Your task to perform on an android device: allow cookies in the chrome app Image 0: 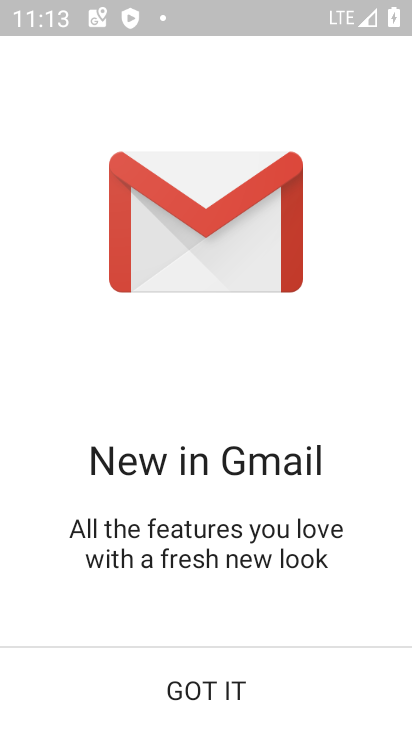
Step 0: press home button
Your task to perform on an android device: allow cookies in the chrome app Image 1: 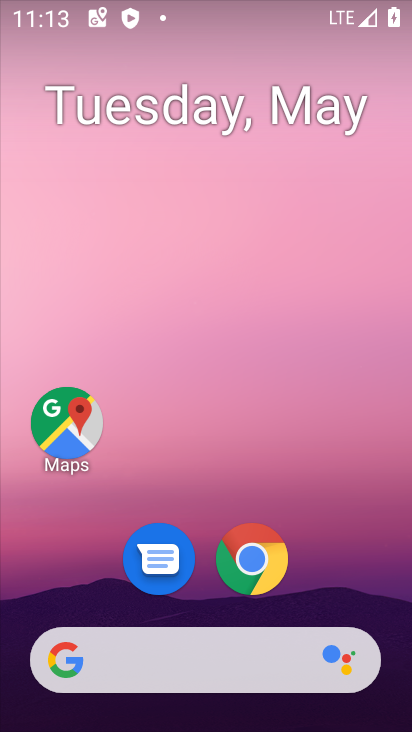
Step 1: drag from (349, 577) to (363, 154)
Your task to perform on an android device: allow cookies in the chrome app Image 2: 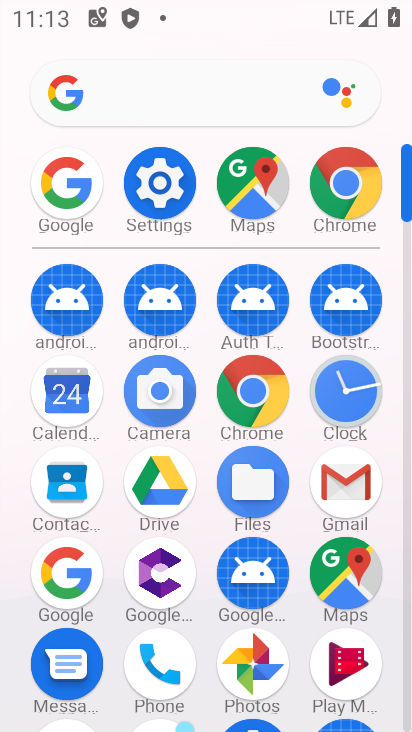
Step 2: click (260, 395)
Your task to perform on an android device: allow cookies in the chrome app Image 3: 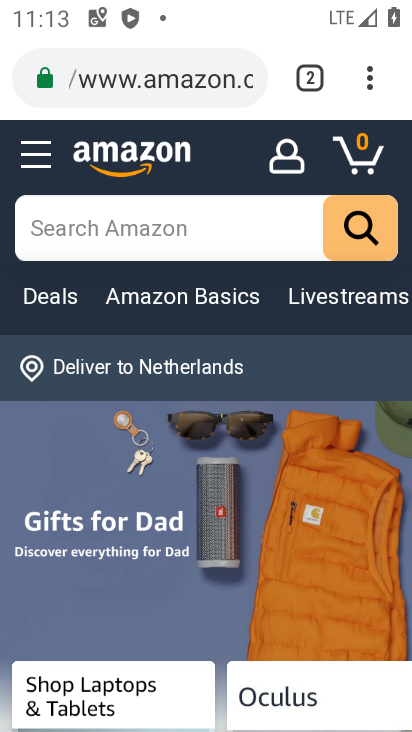
Step 3: drag from (390, 80) to (133, 614)
Your task to perform on an android device: allow cookies in the chrome app Image 4: 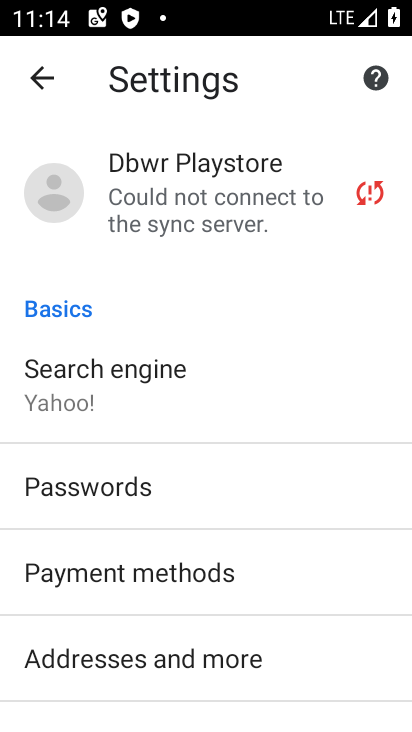
Step 4: drag from (255, 683) to (297, 347)
Your task to perform on an android device: allow cookies in the chrome app Image 5: 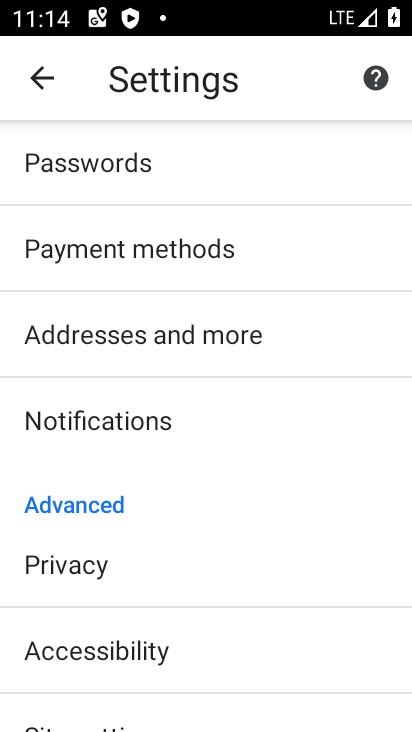
Step 5: drag from (270, 658) to (253, 306)
Your task to perform on an android device: allow cookies in the chrome app Image 6: 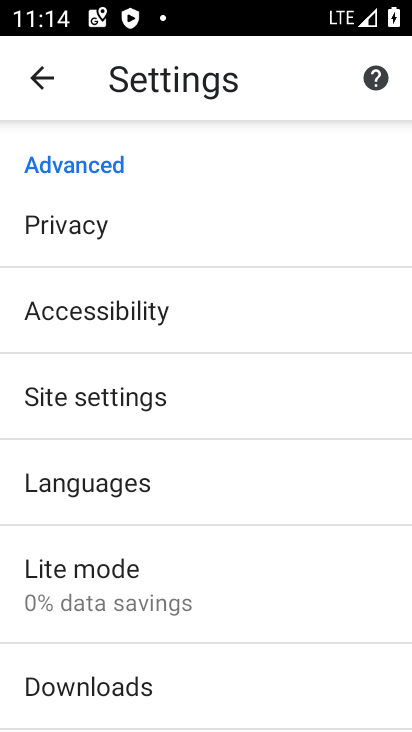
Step 6: click (194, 411)
Your task to perform on an android device: allow cookies in the chrome app Image 7: 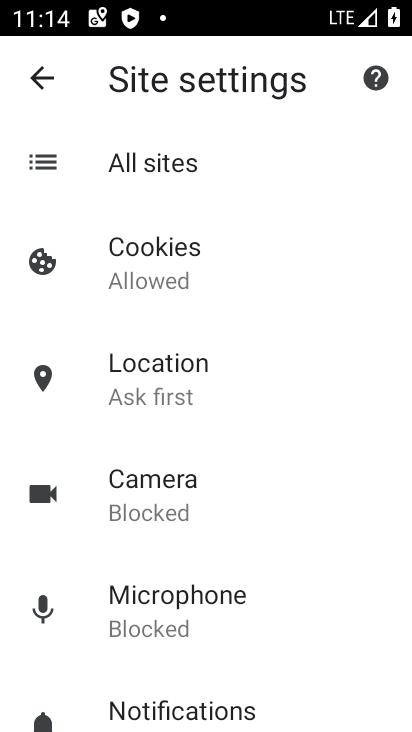
Step 7: click (204, 256)
Your task to perform on an android device: allow cookies in the chrome app Image 8: 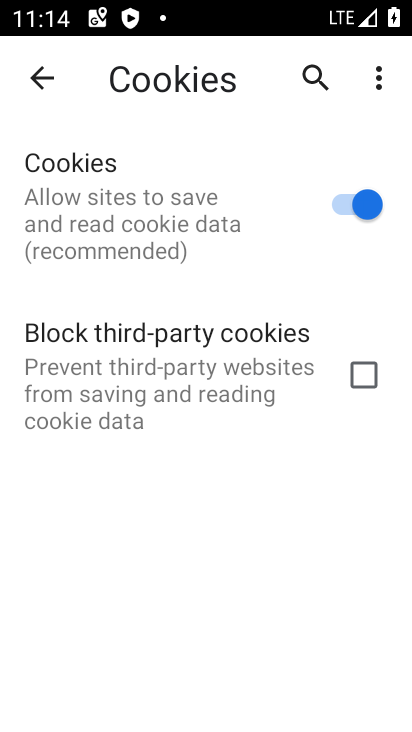
Step 8: task complete